Your task to perform on an android device: open wifi settings Image 0: 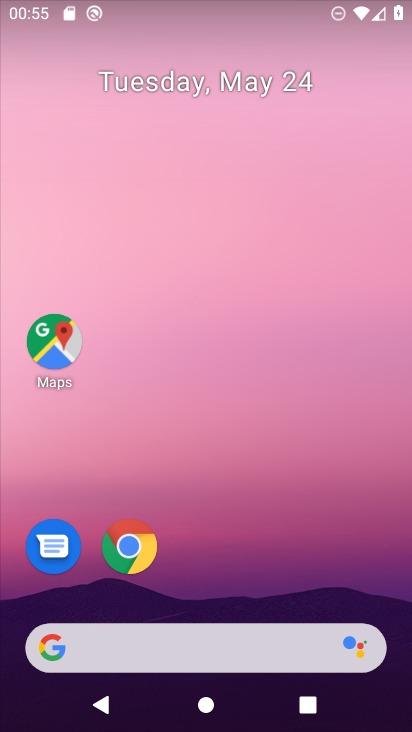
Step 0: drag from (350, 616) to (373, 42)
Your task to perform on an android device: open wifi settings Image 1: 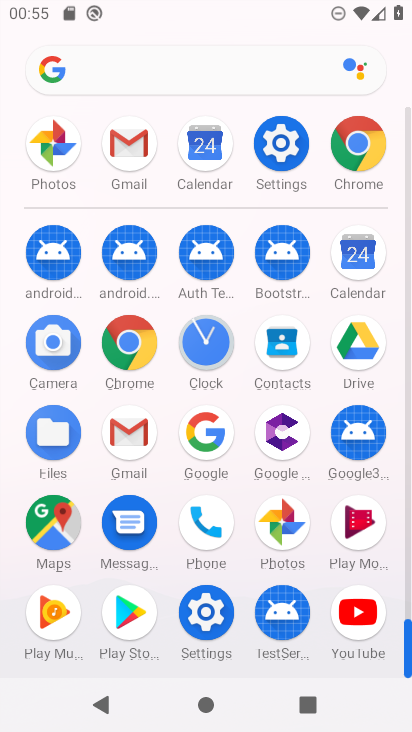
Step 1: click (290, 155)
Your task to perform on an android device: open wifi settings Image 2: 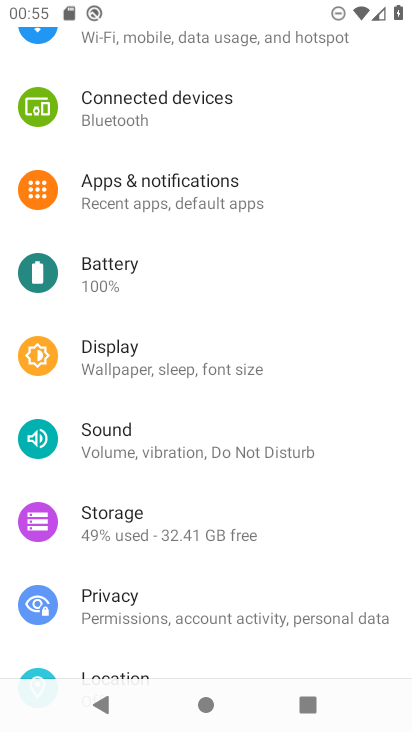
Step 2: drag from (243, 129) to (246, 600)
Your task to perform on an android device: open wifi settings Image 3: 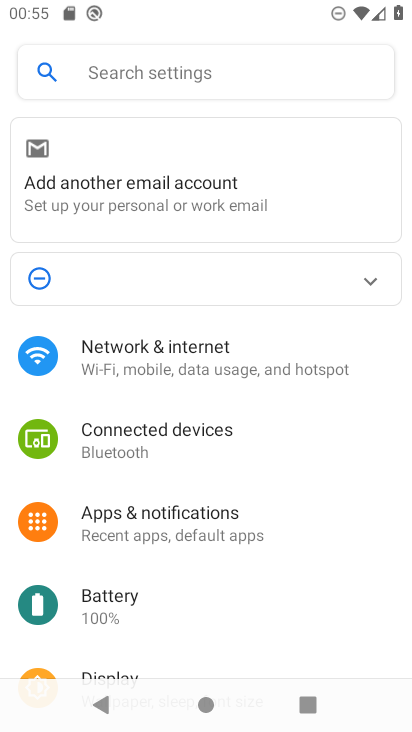
Step 3: click (172, 360)
Your task to perform on an android device: open wifi settings Image 4: 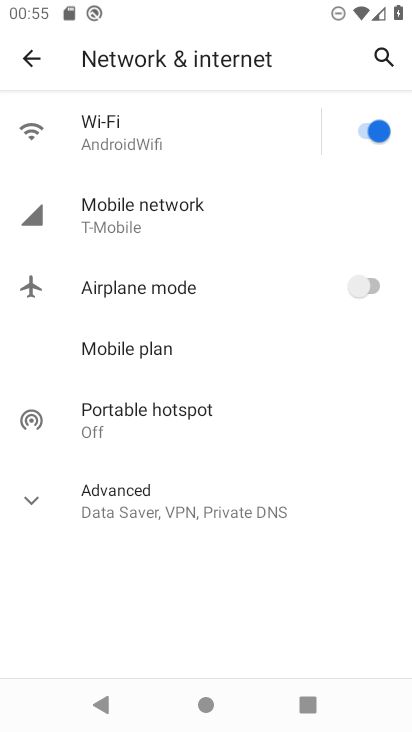
Step 4: click (121, 136)
Your task to perform on an android device: open wifi settings Image 5: 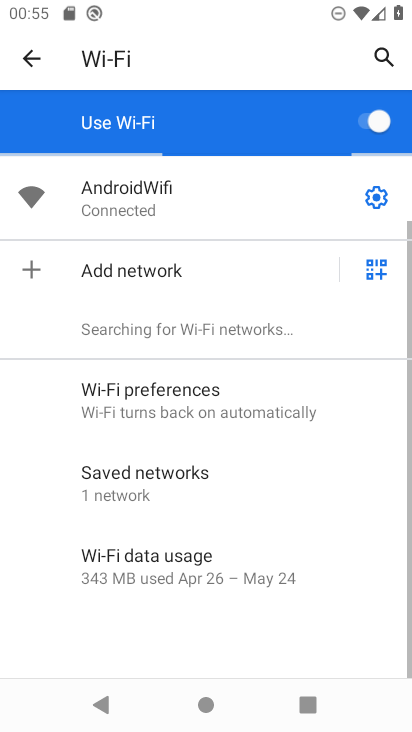
Step 5: task complete